Your task to perform on an android device: Open Google Chrome Image 0: 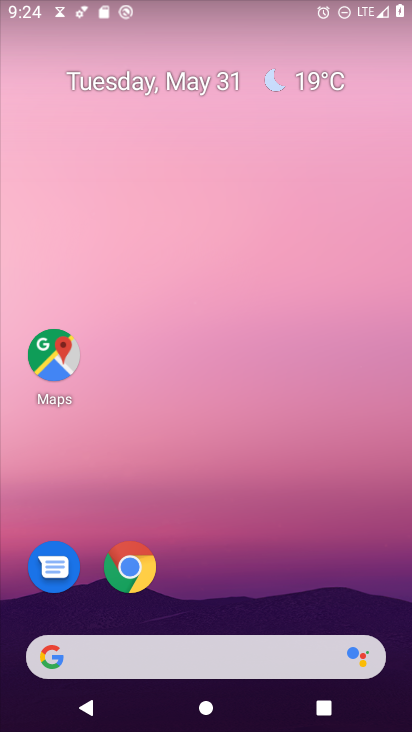
Step 0: click (128, 564)
Your task to perform on an android device: Open Google Chrome Image 1: 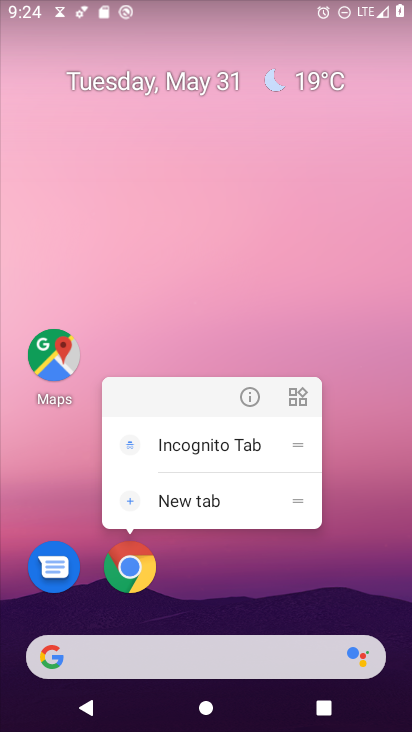
Step 1: click (136, 569)
Your task to perform on an android device: Open Google Chrome Image 2: 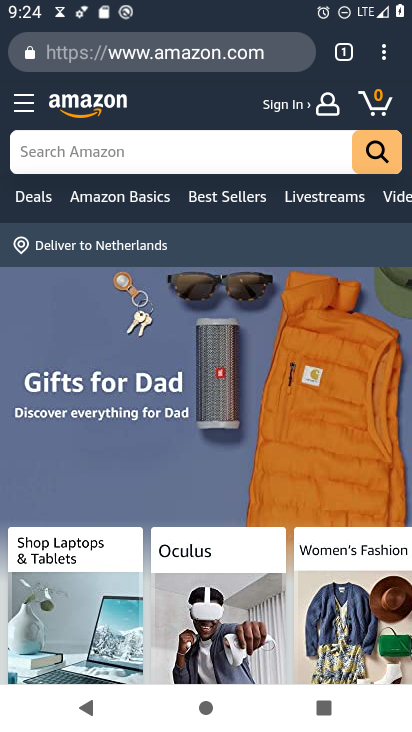
Step 2: task complete